Your task to perform on an android device: snooze an email in the gmail app Image 0: 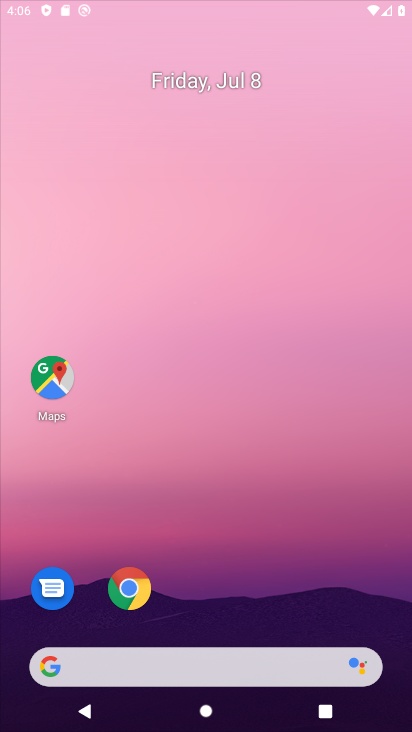
Step 0: press back button
Your task to perform on an android device: snooze an email in the gmail app Image 1: 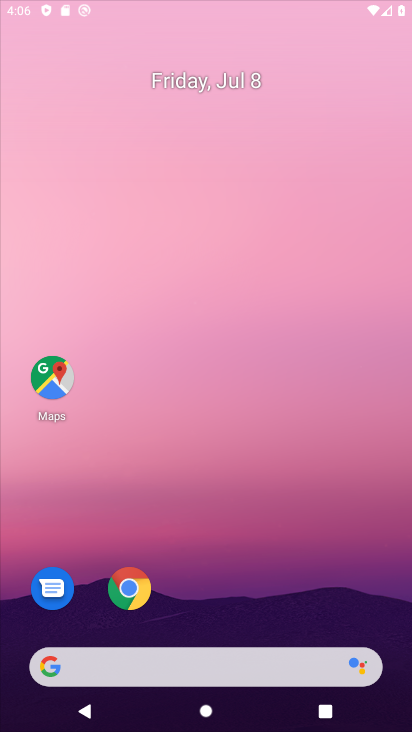
Step 1: click (134, 51)
Your task to perform on an android device: snooze an email in the gmail app Image 2: 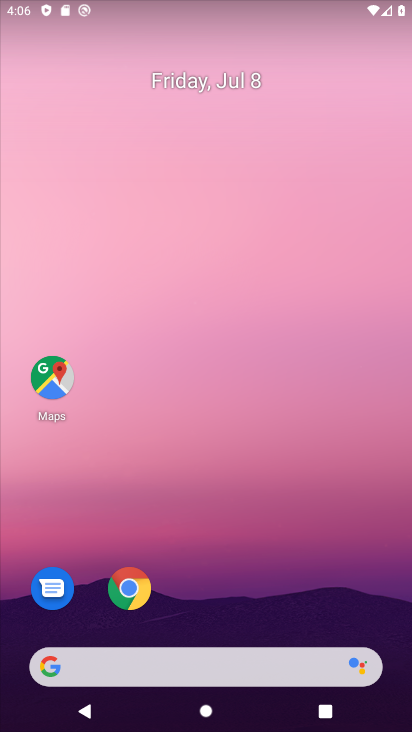
Step 2: drag from (215, 536) to (183, 165)
Your task to perform on an android device: snooze an email in the gmail app Image 3: 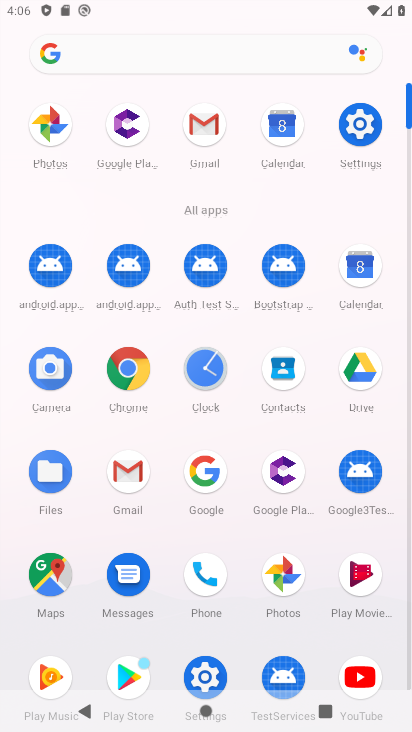
Step 3: click (205, 115)
Your task to perform on an android device: snooze an email in the gmail app Image 4: 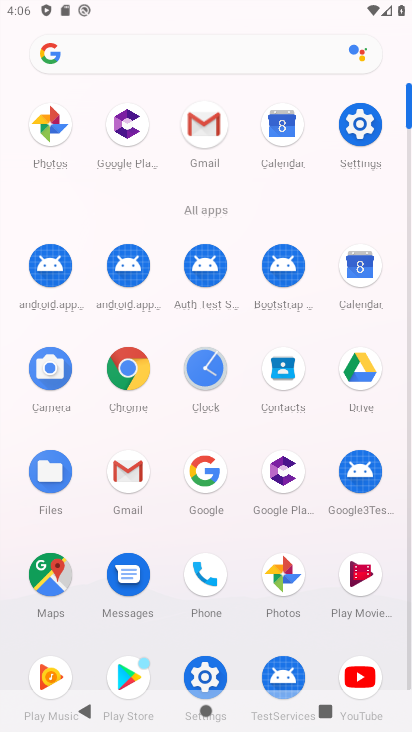
Step 4: click (205, 118)
Your task to perform on an android device: snooze an email in the gmail app Image 5: 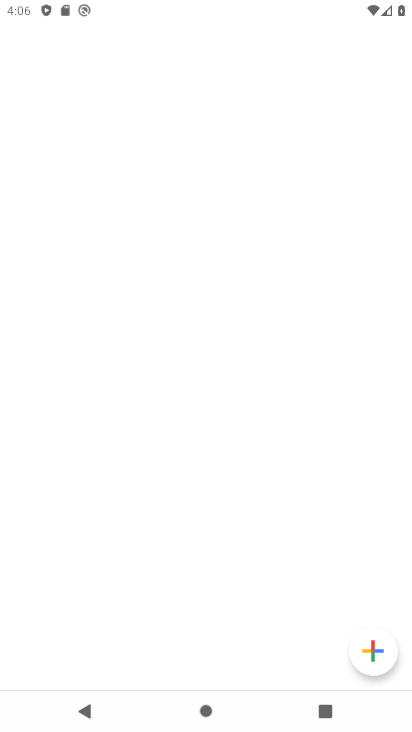
Step 5: click (209, 116)
Your task to perform on an android device: snooze an email in the gmail app Image 6: 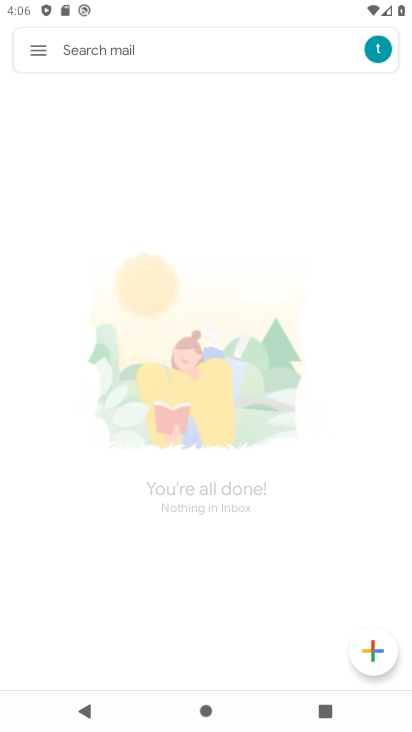
Step 6: click (209, 116)
Your task to perform on an android device: snooze an email in the gmail app Image 7: 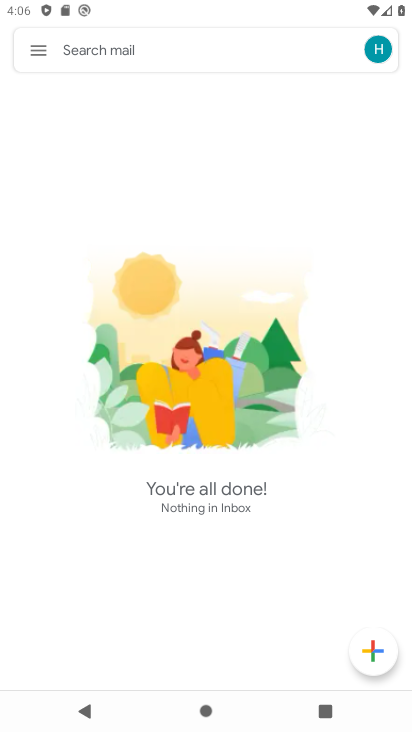
Step 7: click (40, 50)
Your task to perform on an android device: snooze an email in the gmail app Image 8: 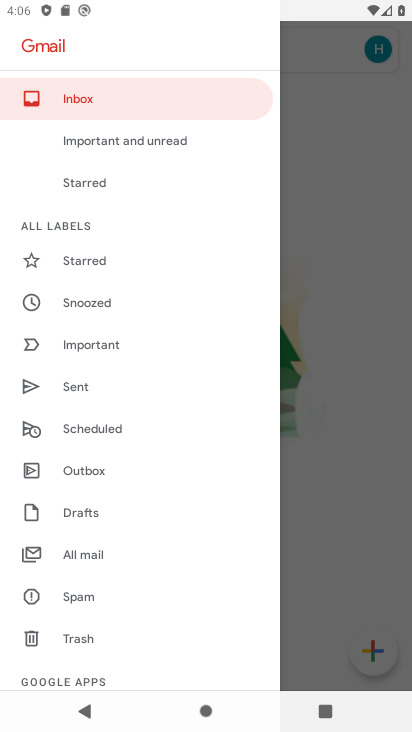
Step 8: click (74, 547)
Your task to perform on an android device: snooze an email in the gmail app Image 9: 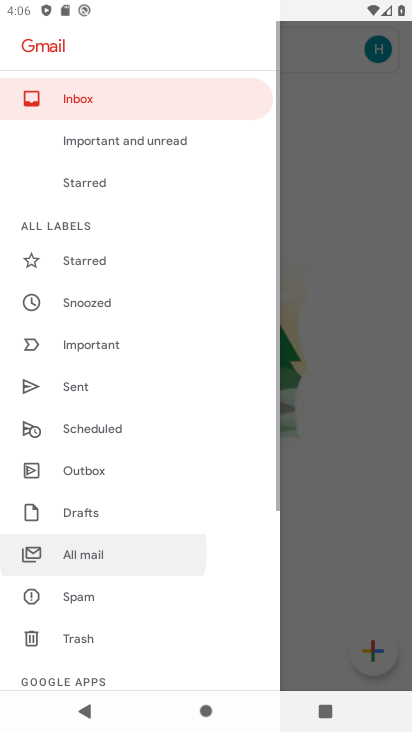
Step 9: click (81, 554)
Your task to perform on an android device: snooze an email in the gmail app Image 10: 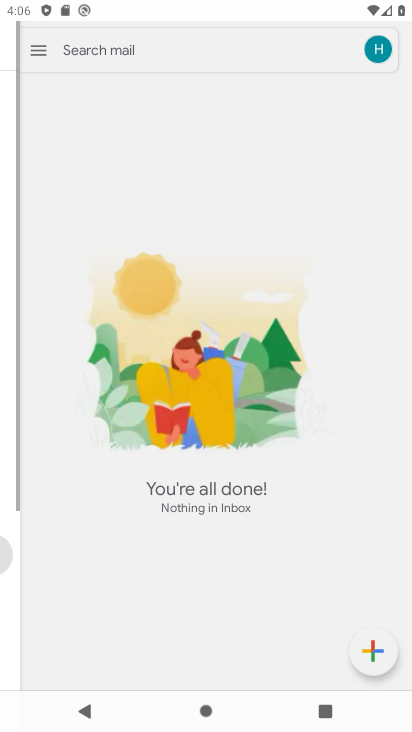
Step 10: click (79, 556)
Your task to perform on an android device: snooze an email in the gmail app Image 11: 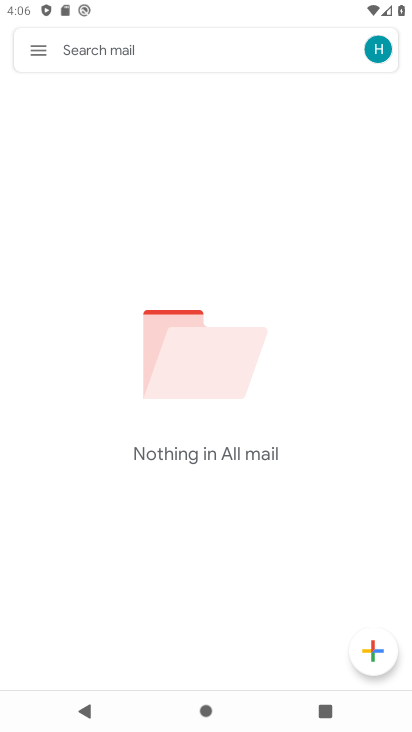
Step 11: task complete